Your task to perform on an android device: Go to internet settings Image 0: 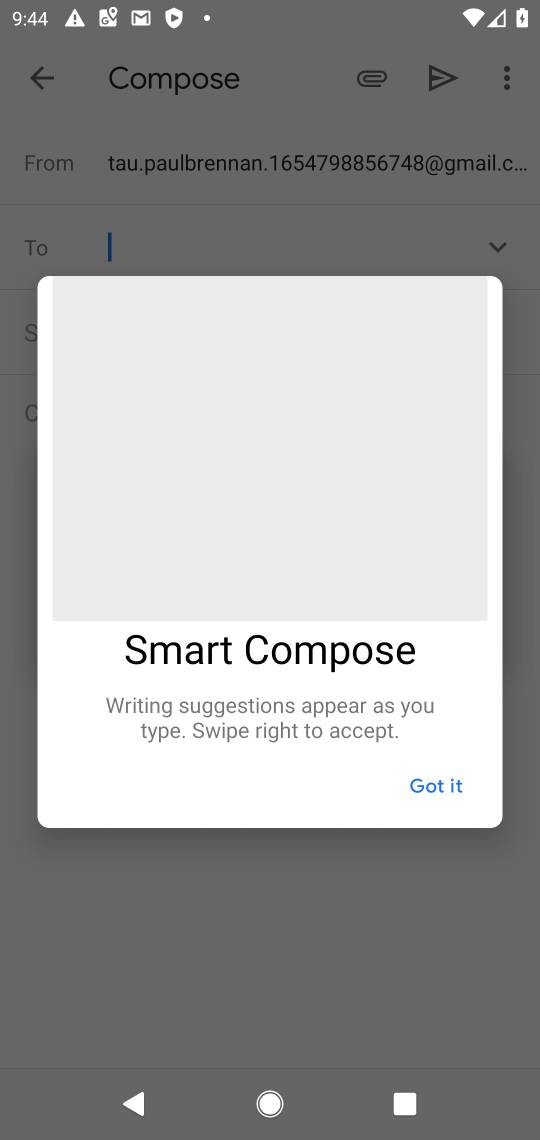
Step 0: press home button
Your task to perform on an android device: Go to internet settings Image 1: 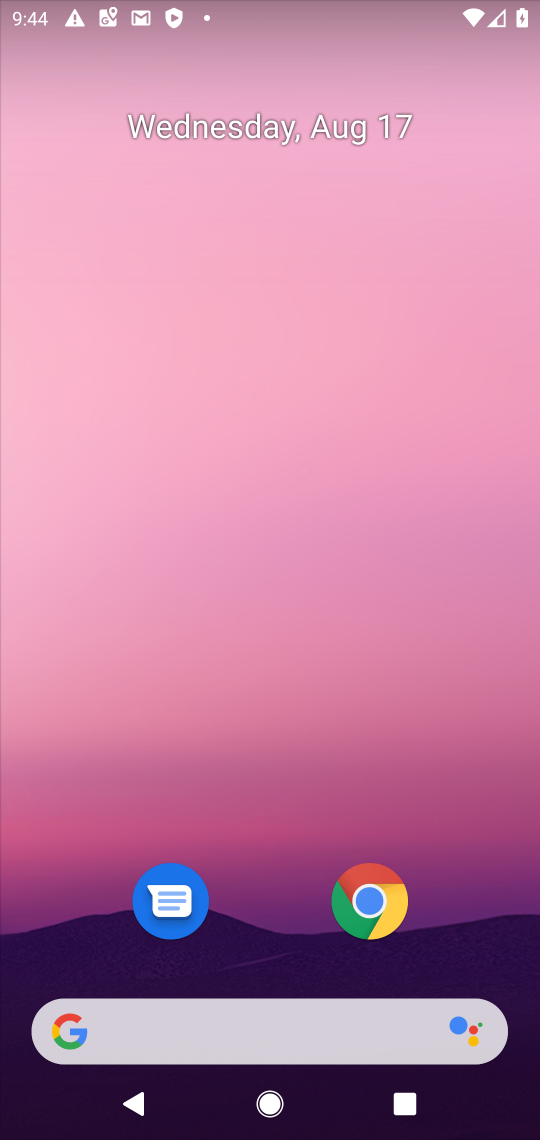
Step 1: drag from (271, 910) to (304, 59)
Your task to perform on an android device: Go to internet settings Image 2: 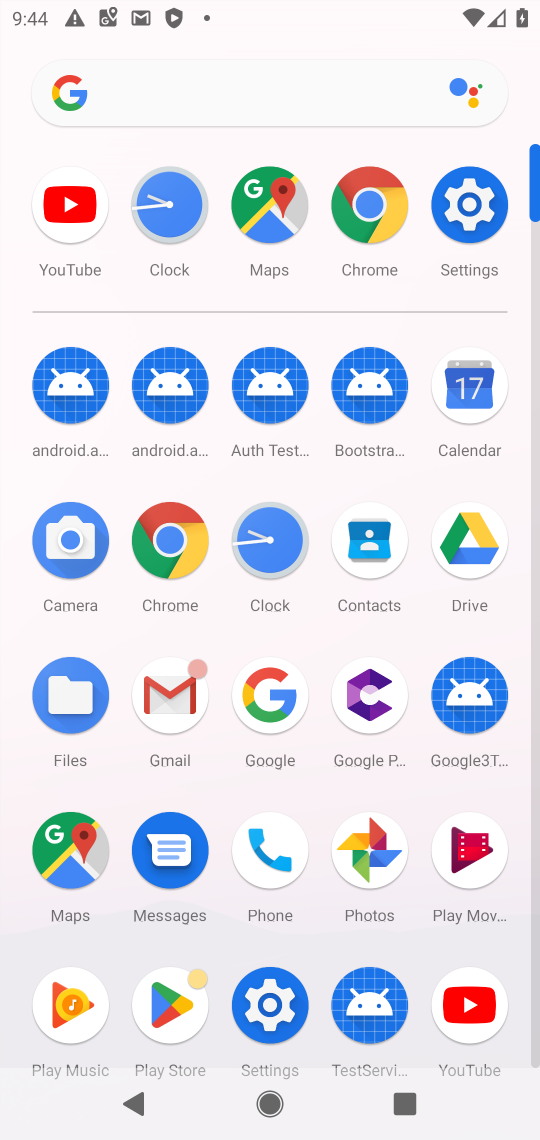
Step 2: click (265, 1017)
Your task to perform on an android device: Go to internet settings Image 3: 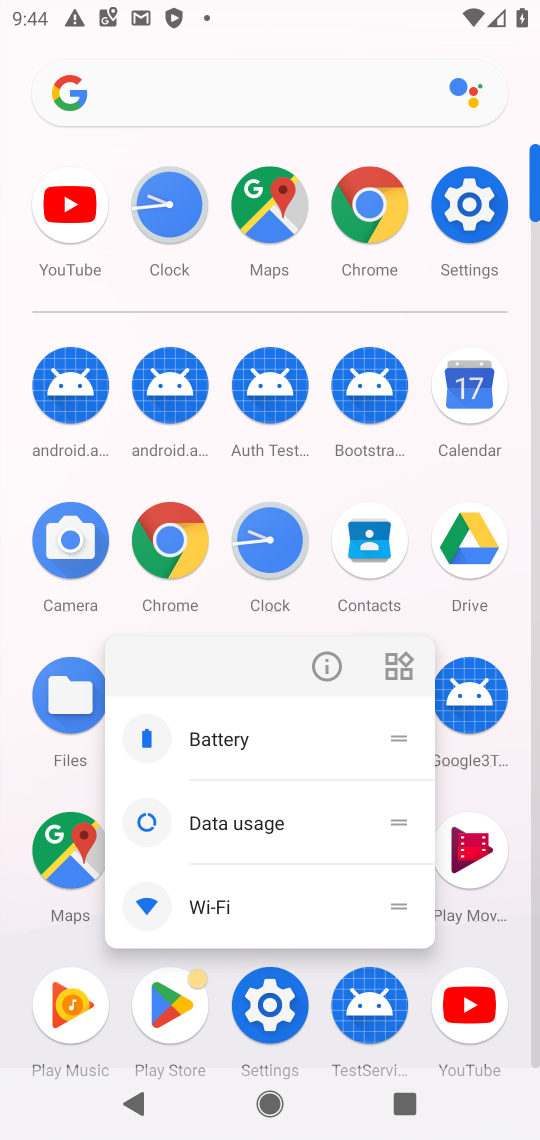
Step 3: click (267, 1000)
Your task to perform on an android device: Go to internet settings Image 4: 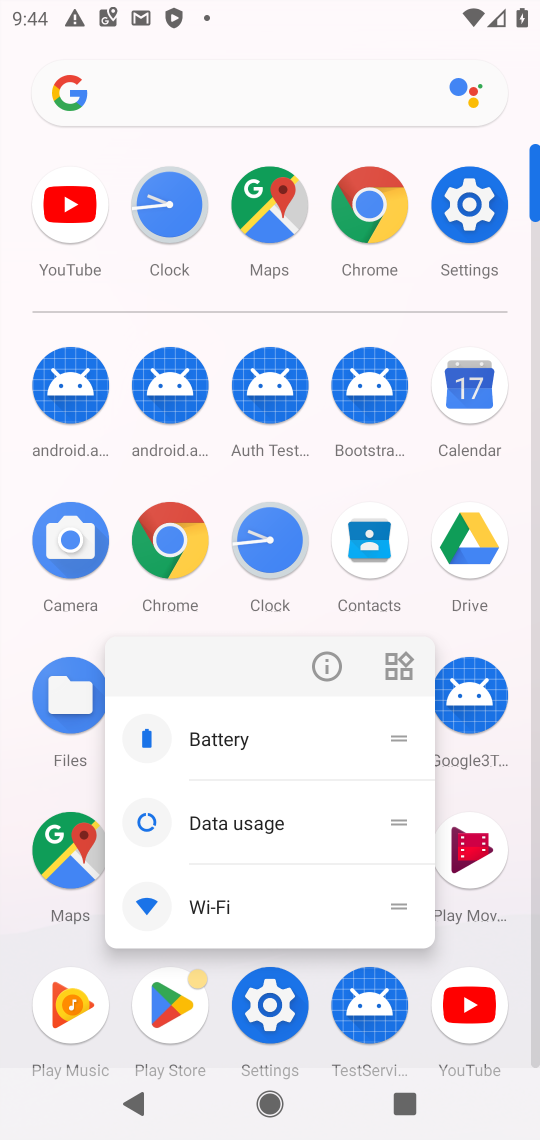
Step 4: click (267, 1000)
Your task to perform on an android device: Go to internet settings Image 5: 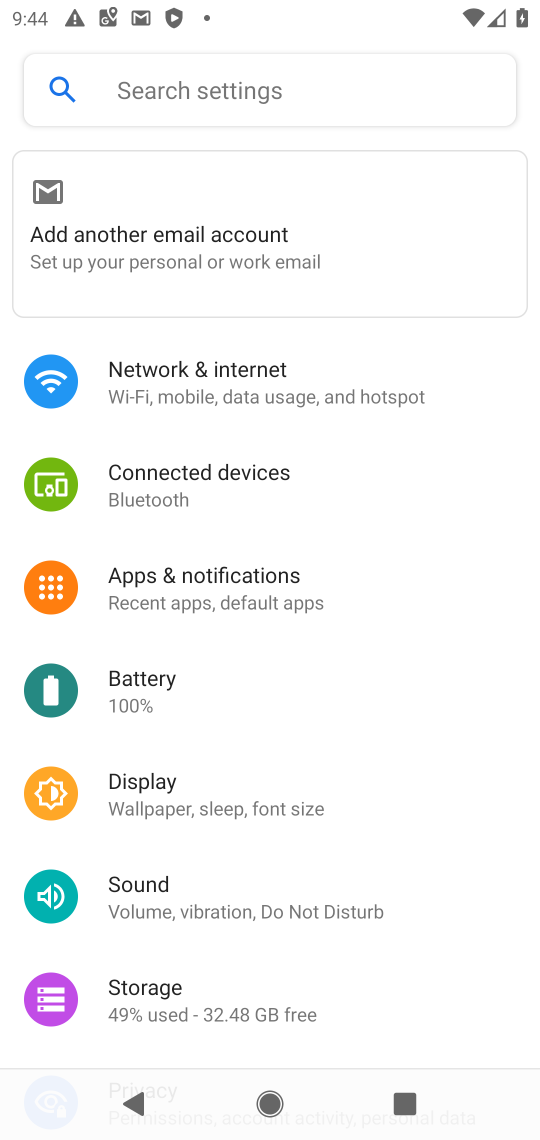
Step 5: click (270, 404)
Your task to perform on an android device: Go to internet settings Image 6: 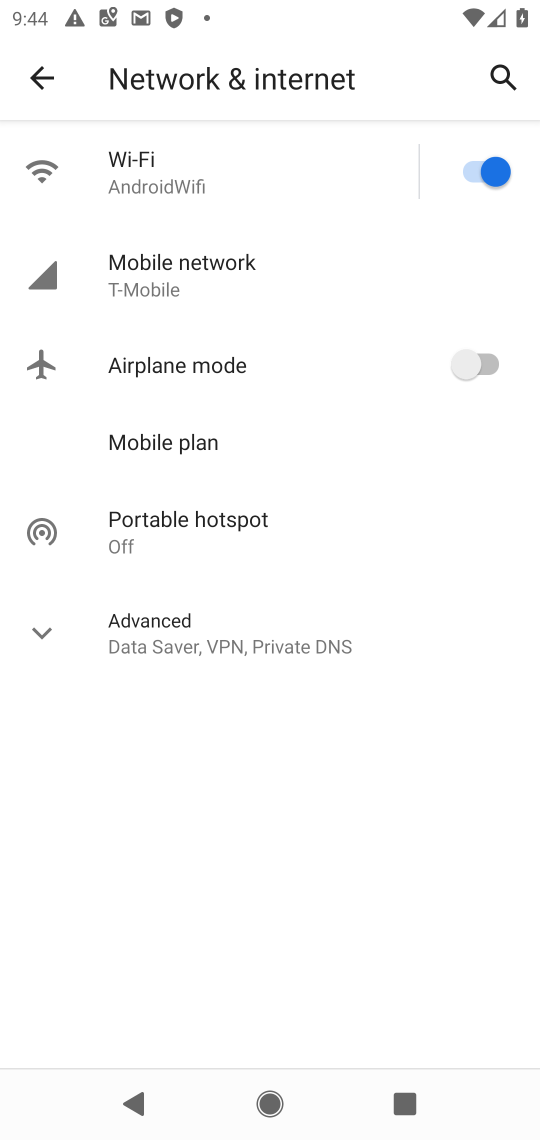
Step 6: task complete